Your task to perform on an android device: delete browsing data in the chrome app Image 0: 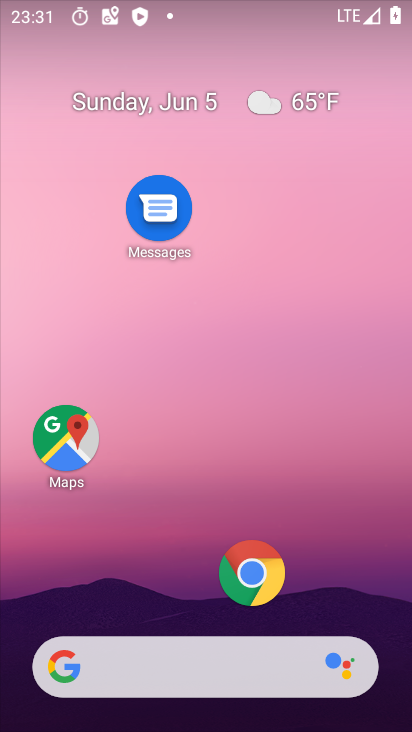
Step 0: click (246, 561)
Your task to perform on an android device: delete browsing data in the chrome app Image 1: 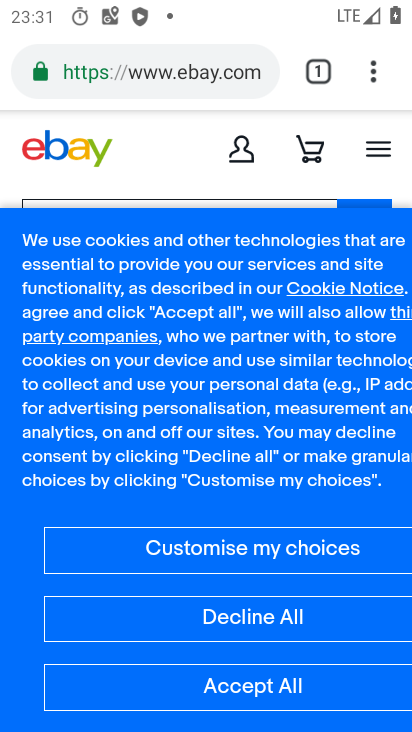
Step 1: drag from (371, 88) to (161, 399)
Your task to perform on an android device: delete browsing data in the chrome app Image 2: 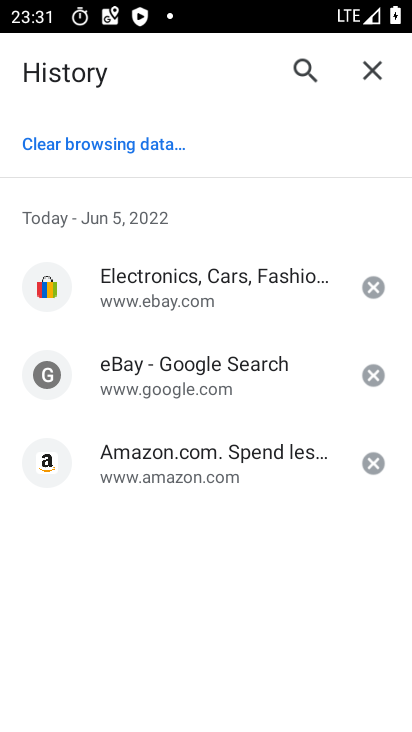
Step 2: click (88, 140)
Your task to perform on an android device: delete browsing data in the chrome app Image 3: 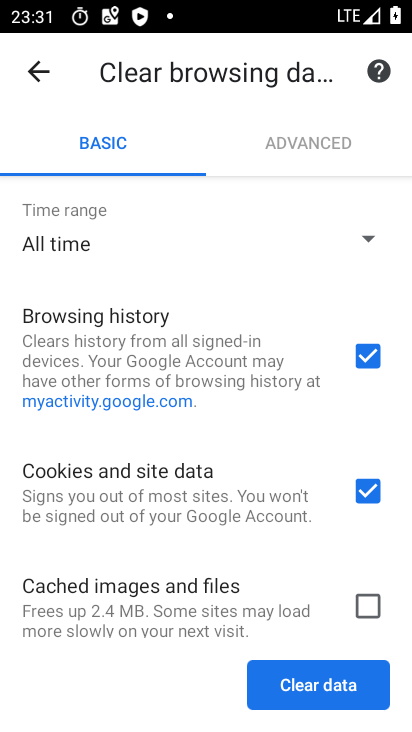
Step 3: click (311, 691)
Your task to perform on an android device: delete browsing data in the chrome app Image 4: 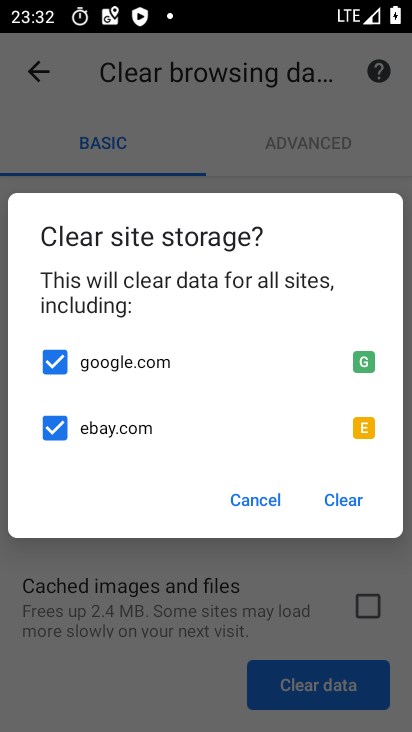
Step 4: click (336, 504)
Your task to perform on an android device: delete browsing data in the chrome app Image 5: 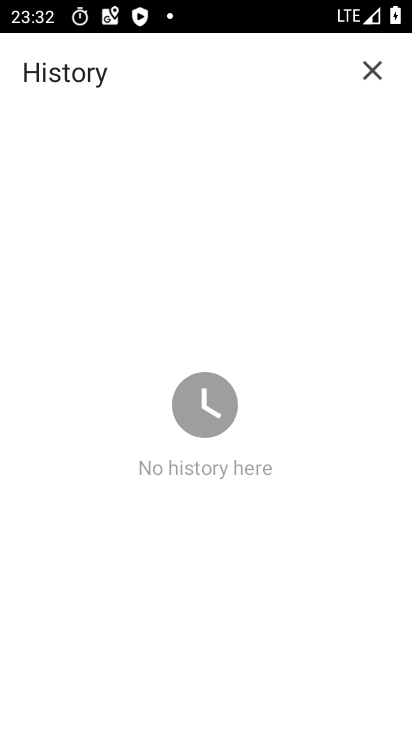
Step 5: task complete